Your task to perform on an android device: Go to settings Image 0: 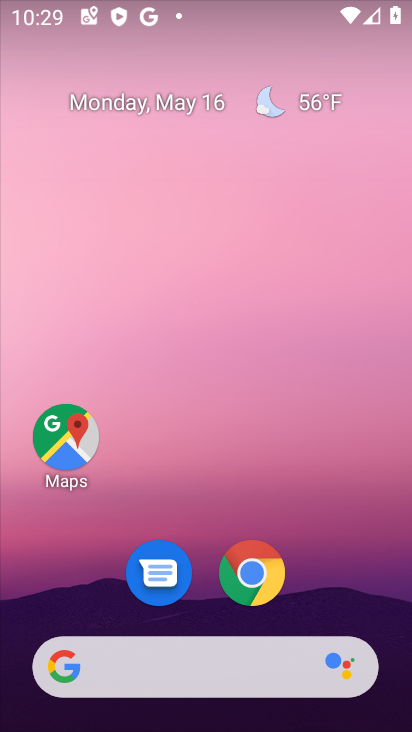
Step 0: drag from (351, 540) to (348, 72)
Your task to perform on an android device: Go to settings Image 1: 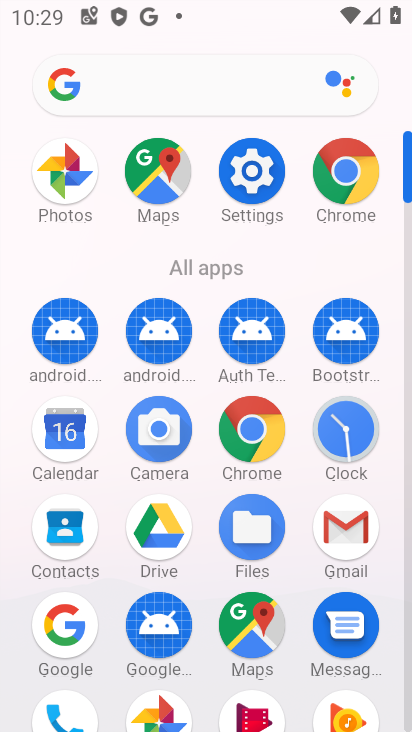
Step 1: click (246, 194)
Your task to perform on an android device: Go to settings Image 2: 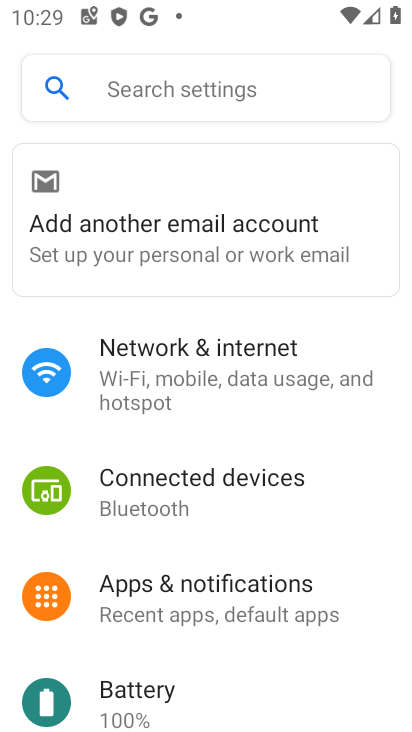
Step 2: task complete